Your task to perform on an android device: toggle pop-ups in chrome Image 0: 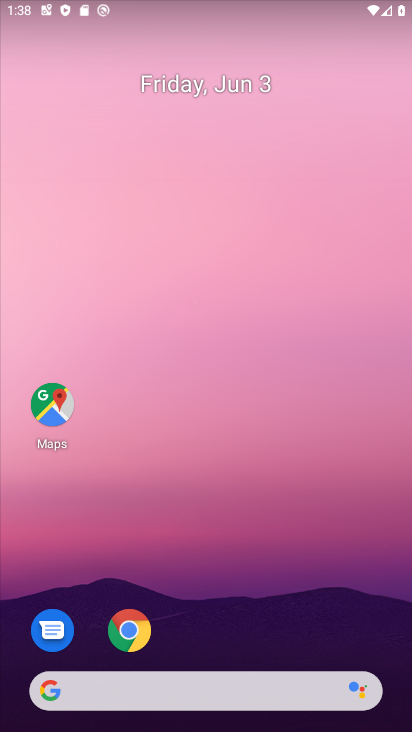
Step 0: click (132, 632)
Your task to perform on an android device: toggle pop-ups in chrome Image 1: 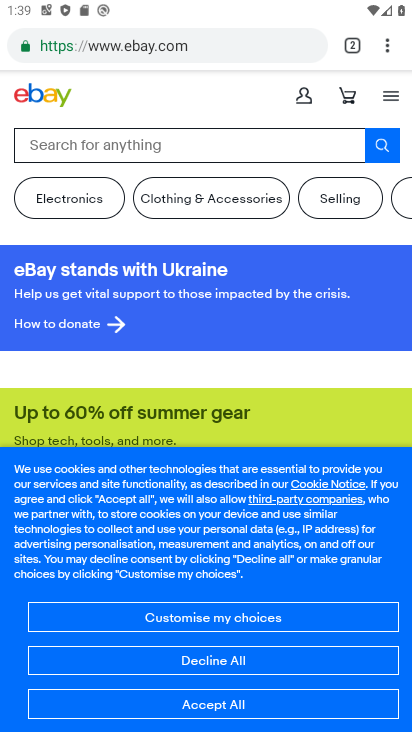
Step 1: click (386, 50)
Your task to perform on an android device: toggle pop-ups in chrome Image 2: 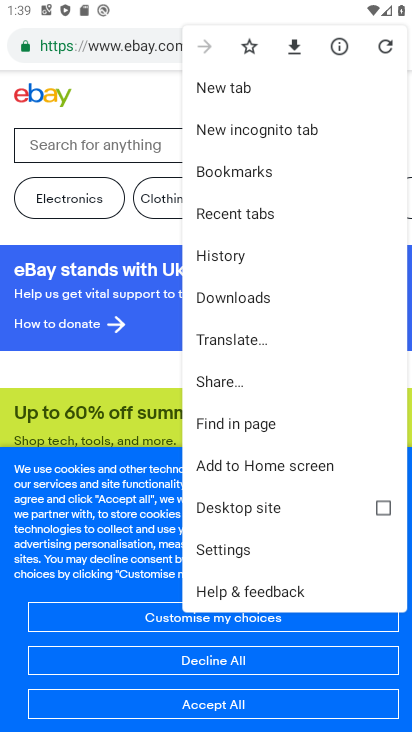
Step 2: click (233, 547)
Your task to perform on an android device: toggle pop-ups in chrome Image 3: 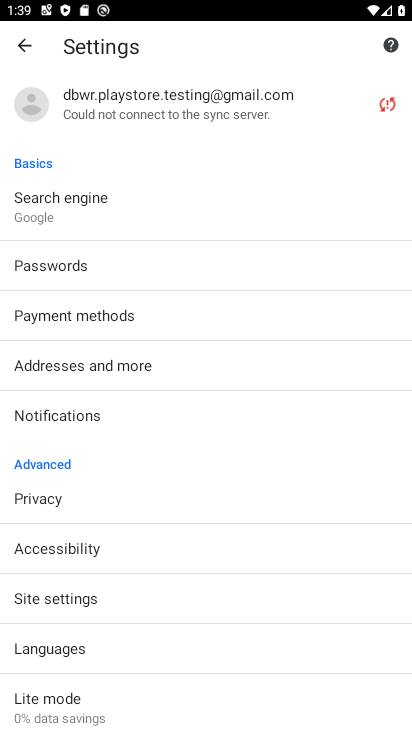
Step 3: click (54, 597)
Your task to perform on an android device: toggle pop-ups in chrome Image 4: 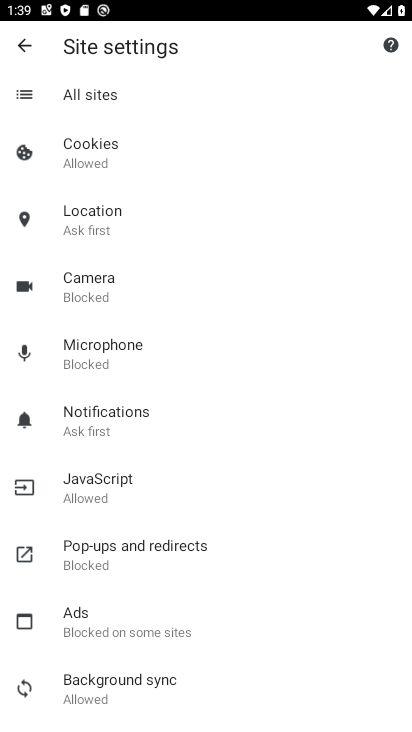
Step 4: drag from (103, 677) to (80, 269)
Your task to perform on an android device: toggle pop-ups in chrome Image 5: 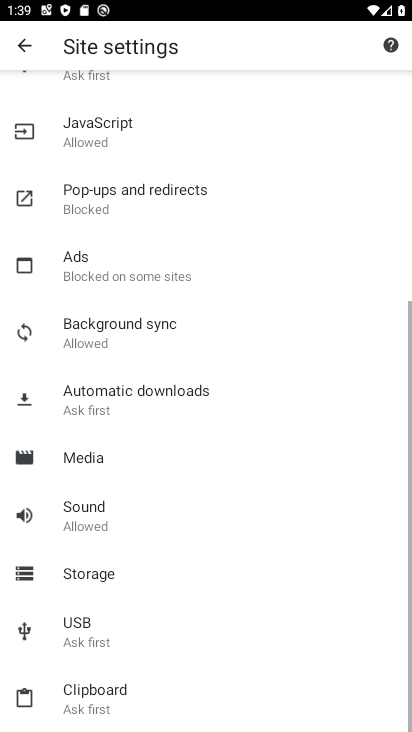
Step 5: drag from (114, 685) to (120, 271)
Your task to perform on an android device: toggle pop-ups in chrome Image 6: 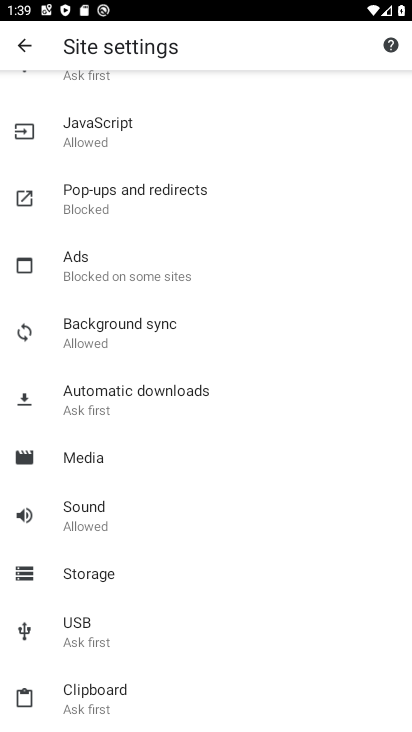
Step 6: drag from (150, 233) to (155, 347)
Your task to perform on an android device: toggle pop-ups in chrome Image 7: 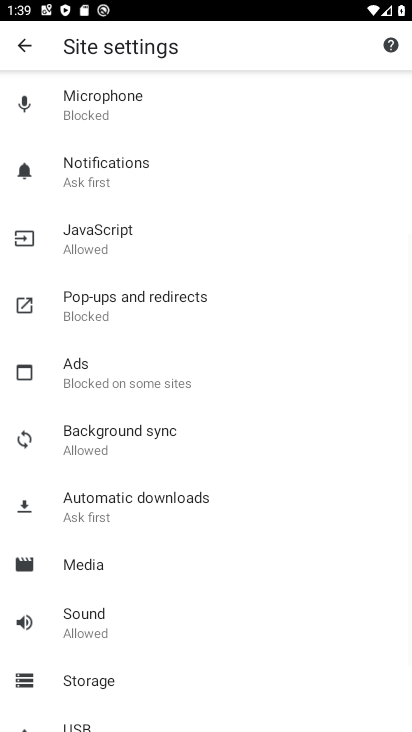
Step 7: click (125, 292)
Your task to perform on an android device: toggle pop-ups in chrome Image 8: 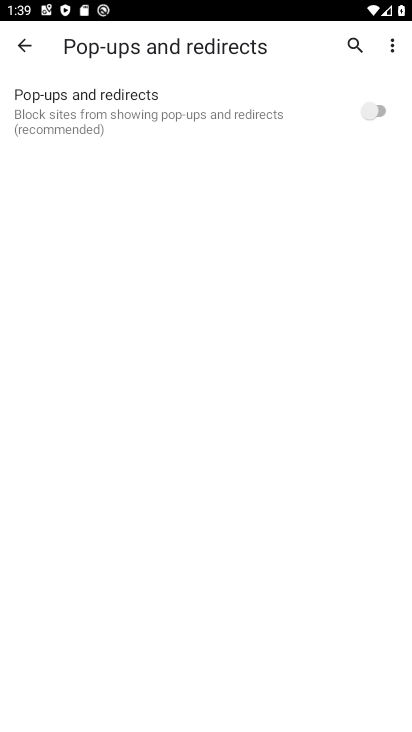
Step 8: click (378, 106)
Your task to perform on an android device: toggle pop-ups in chrome Image 9: 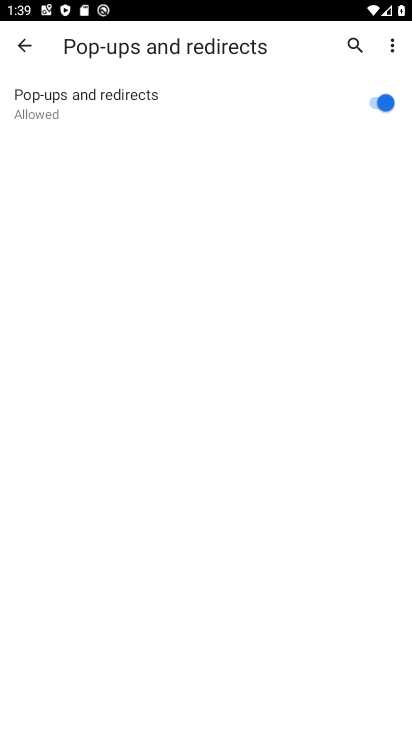
Step 9: task complete